Your task to perform on an android device: set an alarm Image 0: 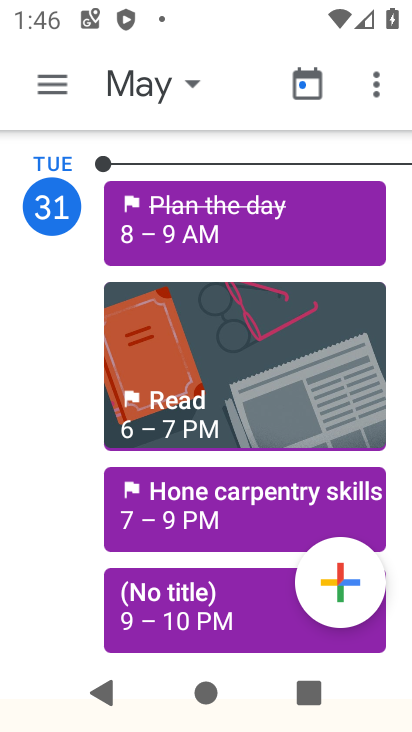
Step 0: press home button
Your task to perform on an android device: set an alarm Image 1: 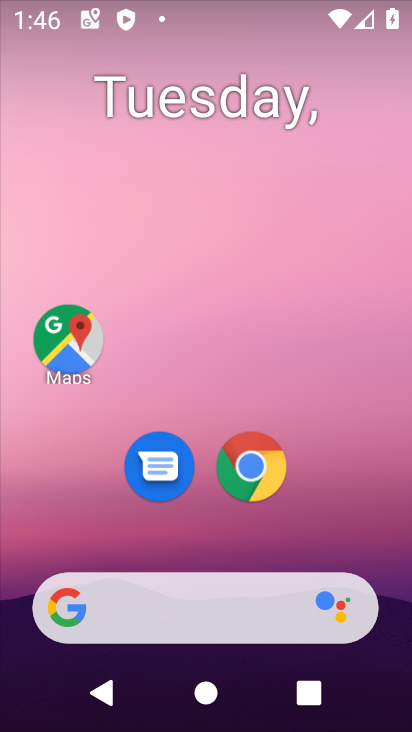
Step 1: drag from (352, 532) to (241, 6)
Your task to perform on an android device: set an alarm Image 2: 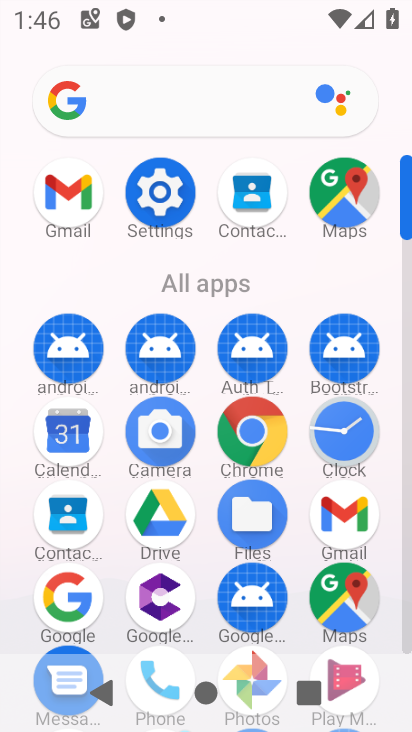
Step 2: click (359, 419)
Your task to perform on an android device: set an alarm Image 3: 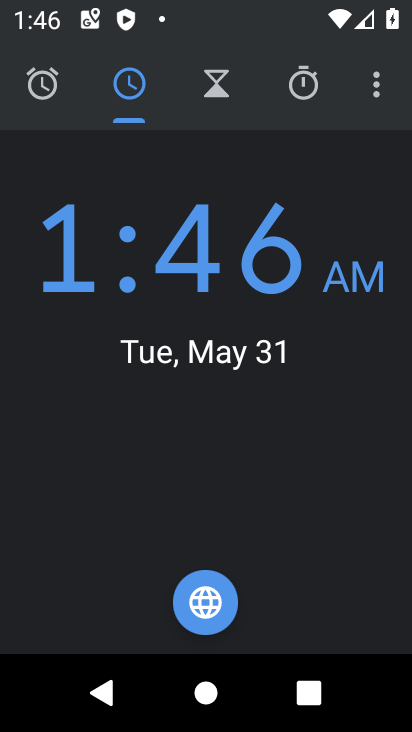
Step 3: click (36, 103)
Your task to perform on an android device: set an alarm Image 4: 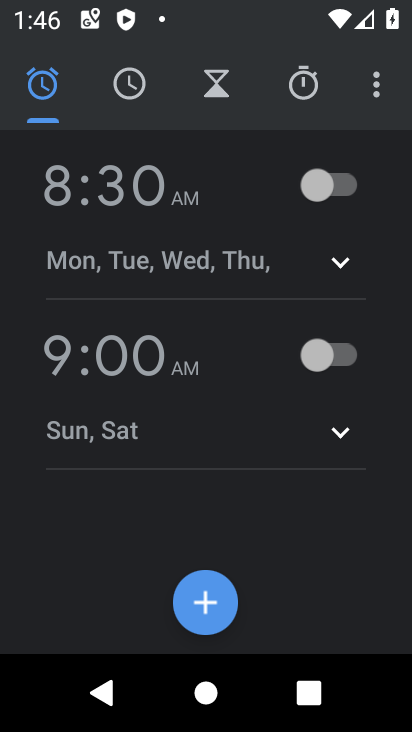
Step 4: task complete